Your task to perform on an android device: open wifi settings Image 0: 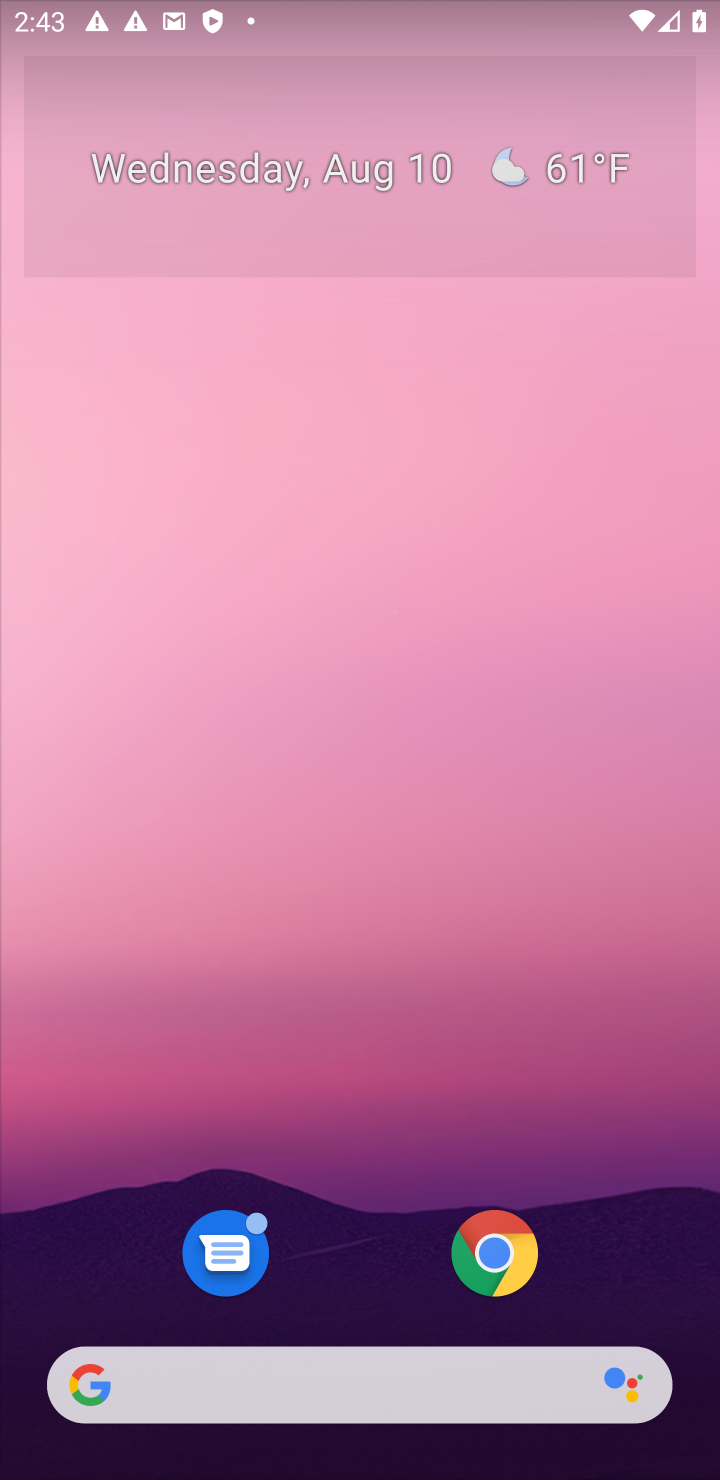
Step 0: drag from (453, 732) to (480, 113)
Your task to perform on an android device: open wifi settings Image 1: 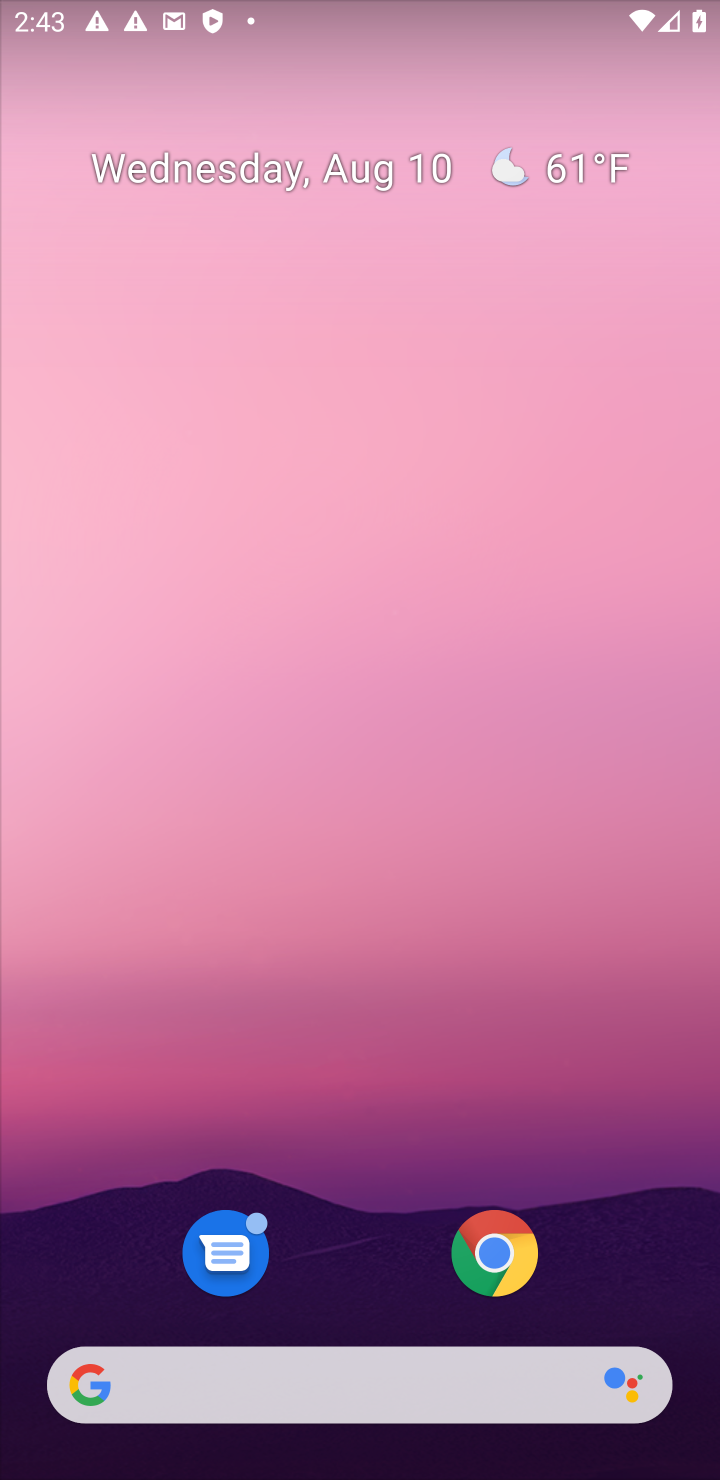
Step 1: drag from (420, 955) to (447, 410)
Your task to perform on an android device: open wifi settings Image 2: 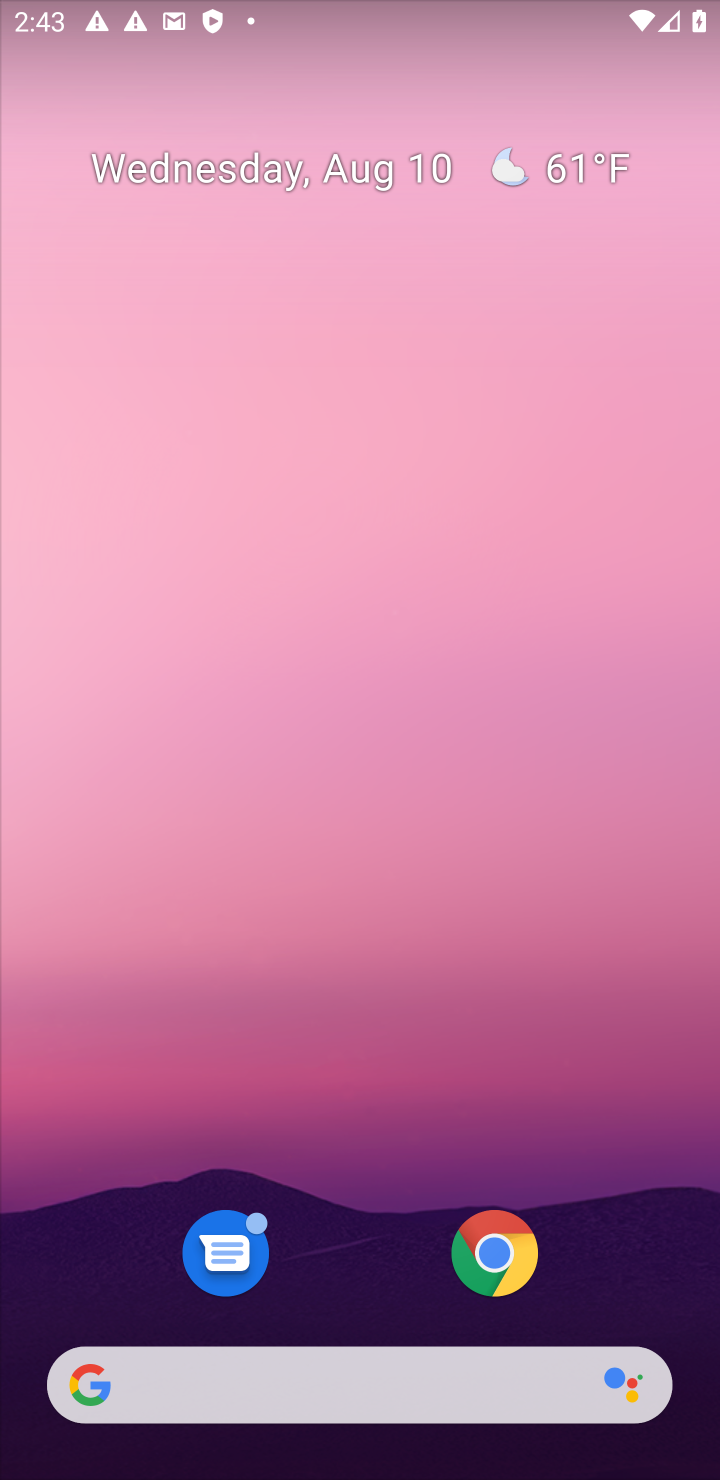
Step 2: drag from (391, 978) to (329, 150)
Your task to perform on an android device: open wifi settings Image 3: 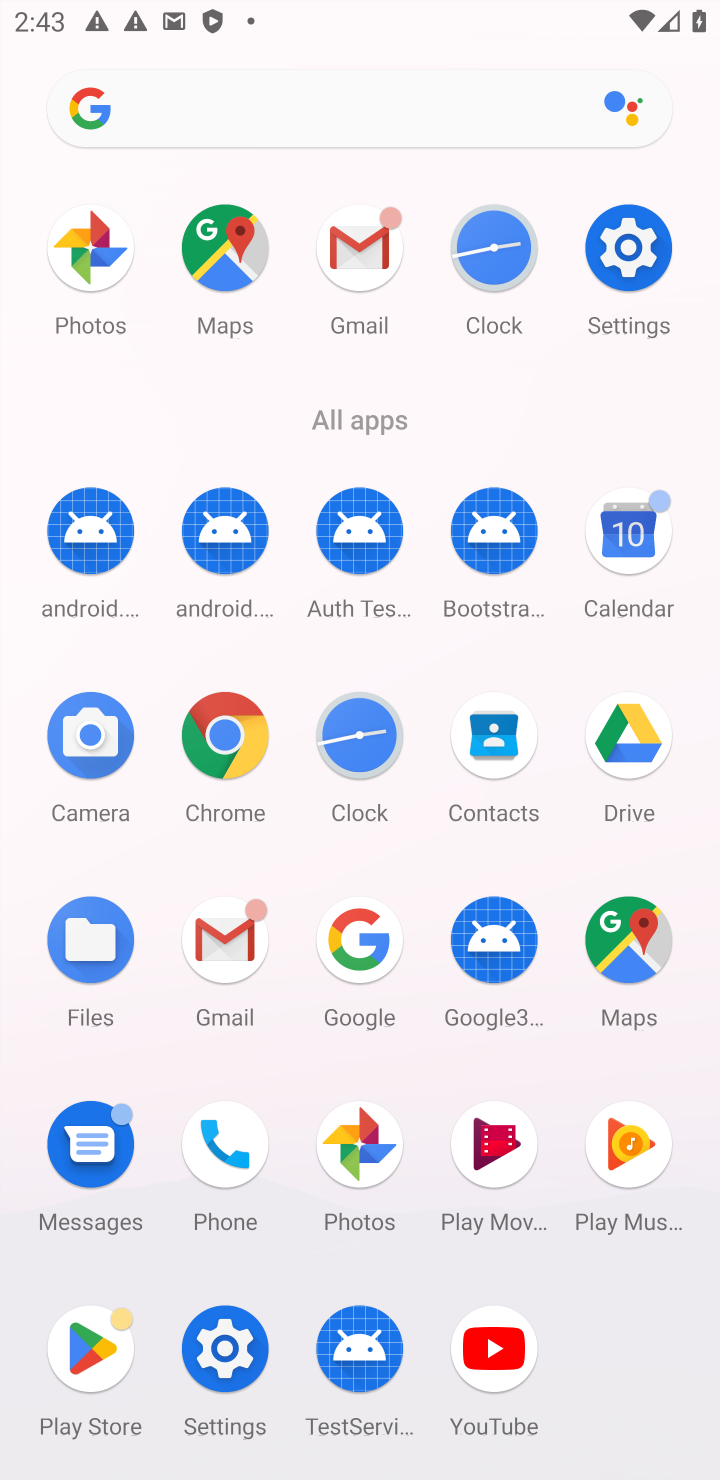
Step 3: click (631, 265)
Your task to perform on an android device: open wifi settings Image 4: 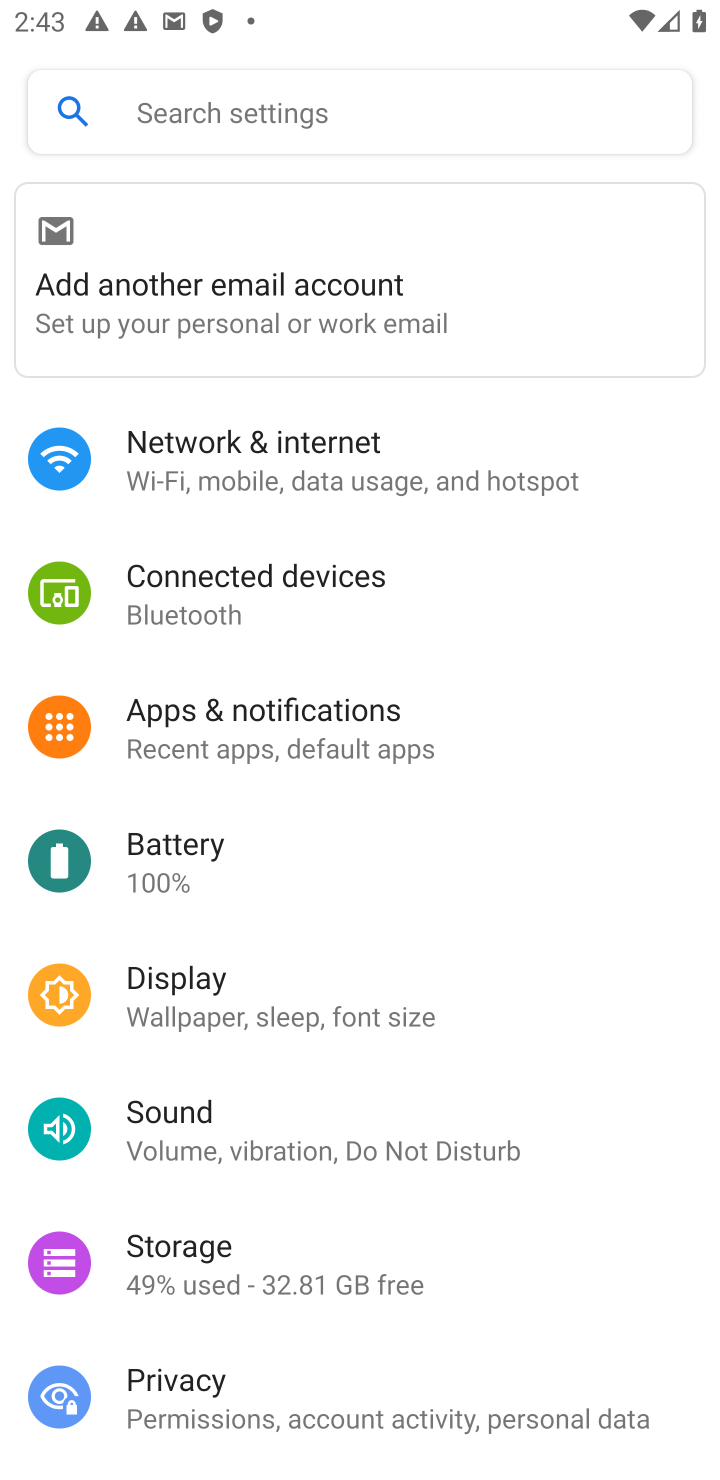
Step 4: task complete